Your task to perform on an android device: Search for rayovac triple a on bestbuy.com, select the first entry, add it to the cart, then select checkout. Image 0: 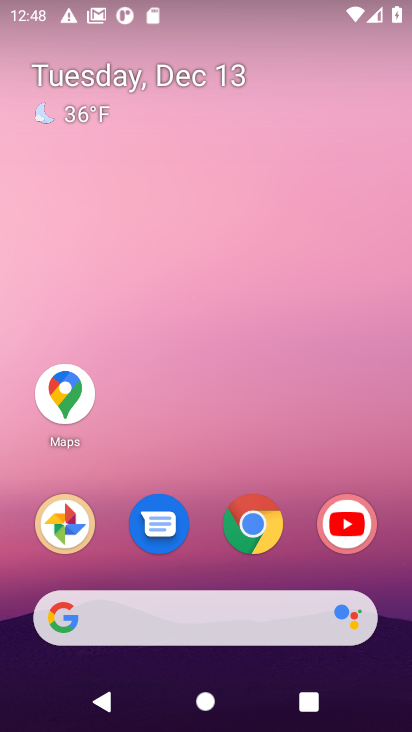
Step 0: click (251, 530)
Your task to perform on an android device: Search for rayovac triple a on bestbuy.com, select the first entry, add it to the cart, then select checkout. Image 1: 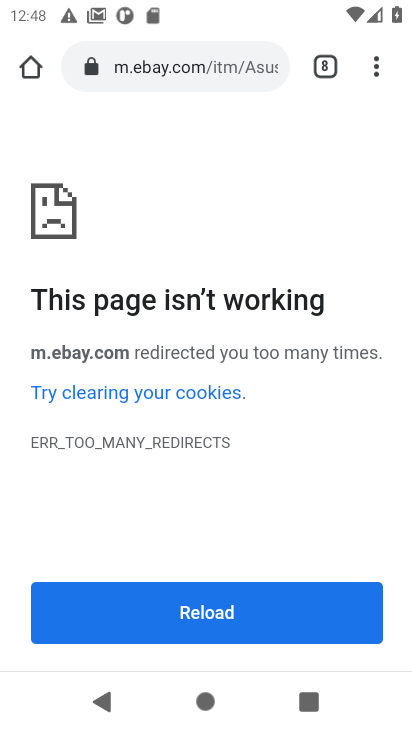
Step 1: click (145, 72)
Your task to perform on an android device: Search for rayovac triple a on bestbuy.com, select the first entry, add it to the cart, then select checkout. Image 2: 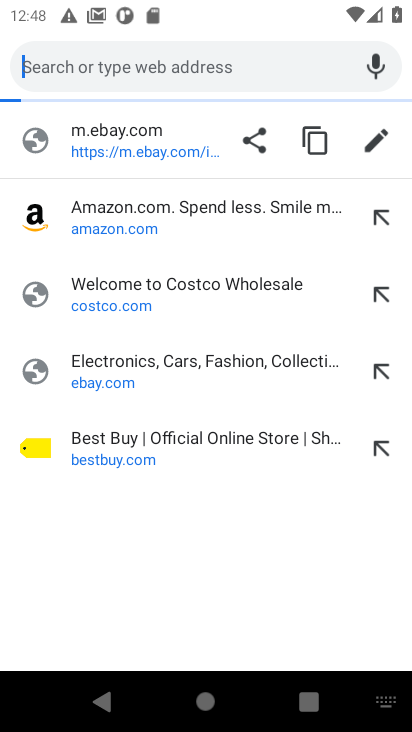
Step 2: click (115, 454)
Your task to perform on an android device: Search for rayovac triple a on bestbuy.com, select the first entry, add it to the cart, then select checkout. Image 3: 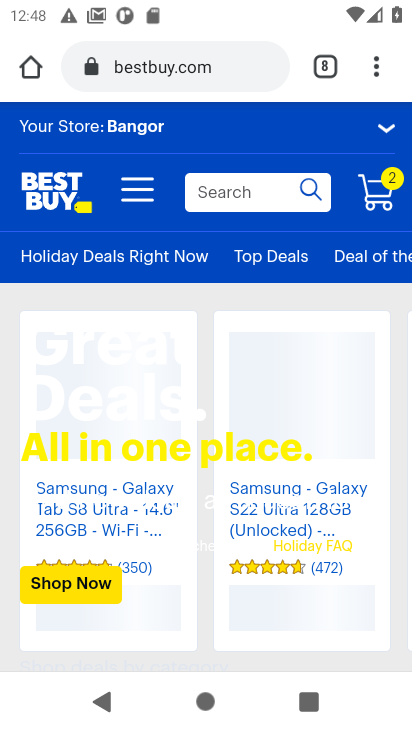
Step 3: click (206, 189)
Your task to perform on an android device: Search for rayovac triple a on bestbuy.com, select the first entry, add it to the cart, then select checkout. Image 4: 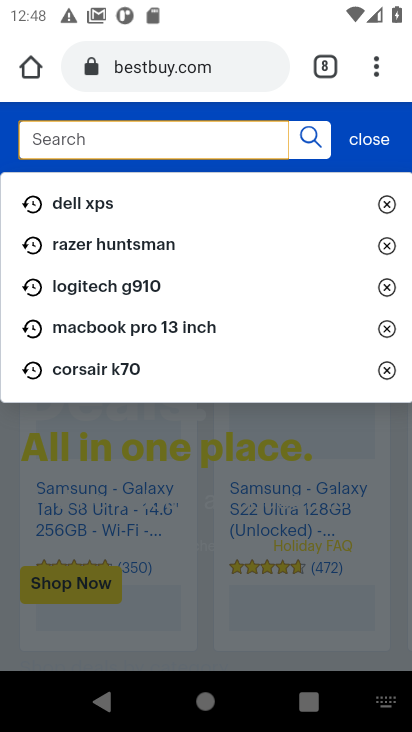
Step 4: type "rayovac triple a"
Your task to perform on an android device: Search for rayovac triple a on bestbuy.com, select the first entry, add it to the cart, then select checkout. Image 5: 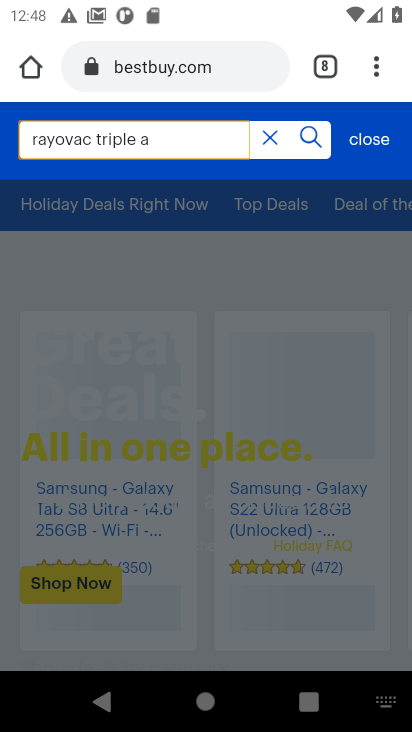
Step 5: click (312, 132)
Your task to perform on an android device: Search for rayovac triple a on bestbuy.com, select the first entry, add it to the cart, then select checkout. Image 6: 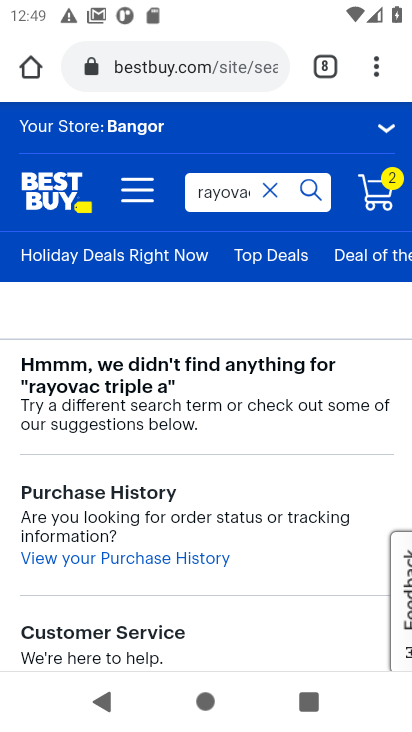
Step 6: task complete